Your task to perform on an android device: turn off data saver in the chrome app Image 0: 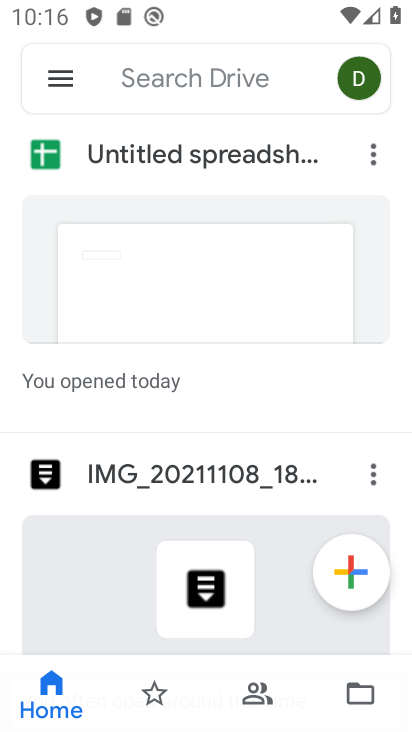
Step 0: press home button
Your task to perform on an android device: turn off data saver in the chrome app Image 1: 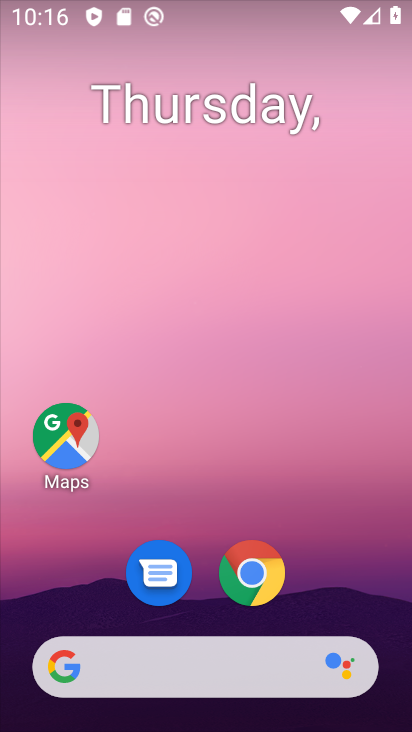
Step 1: click (246, 570)
Your task to perform on an android device: turn off data saver in the chrome app Image 2: 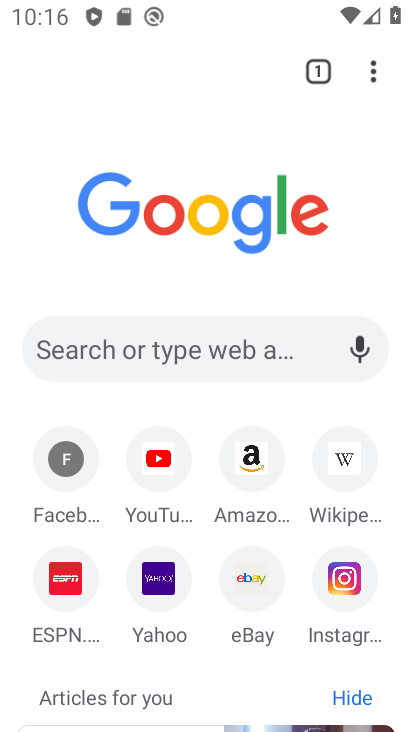
Step 2: click (376, 65)
Your task to perform on an android device: turn off data saver in the chrome app Image 3: 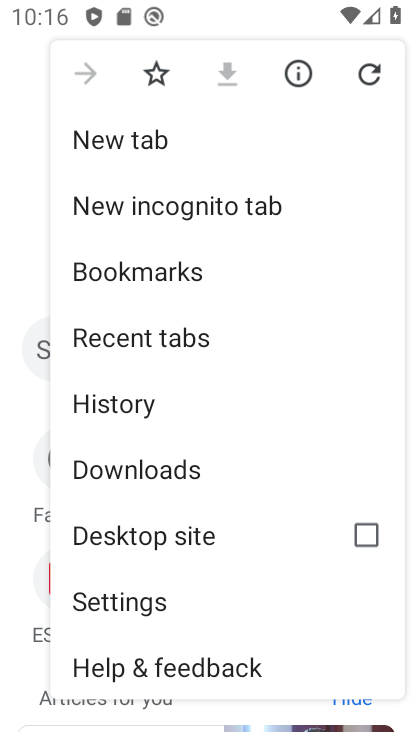
Step 3: drag from (203, 559) to (228, 12)
Your task to perform on an android device: turn off data saver in the chrome app Image 4: 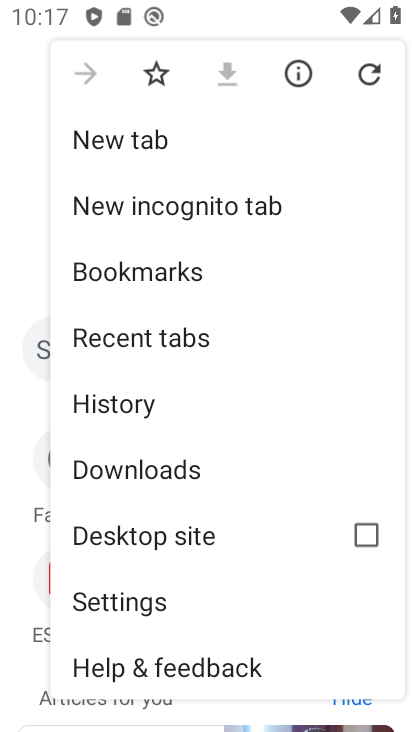
Step 4: click (140, 600)
Your task to perform on an android device: turn off data saver in the chrome app Image 5: 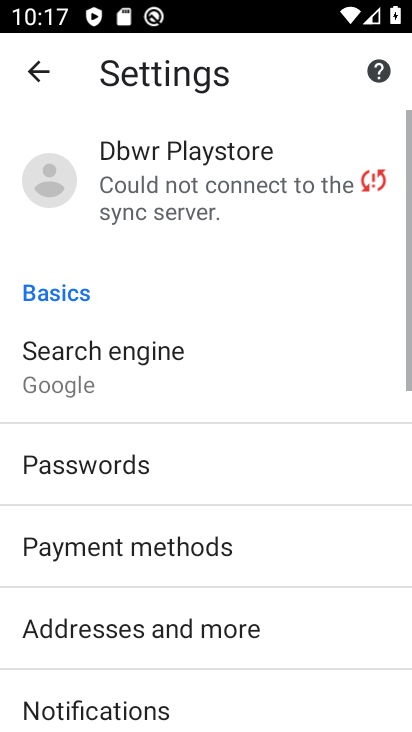
Step 5: drag from (139, 600) to (182, 8)
Your task to perform on an android device: turn off data saver in the chrome app Image 6: 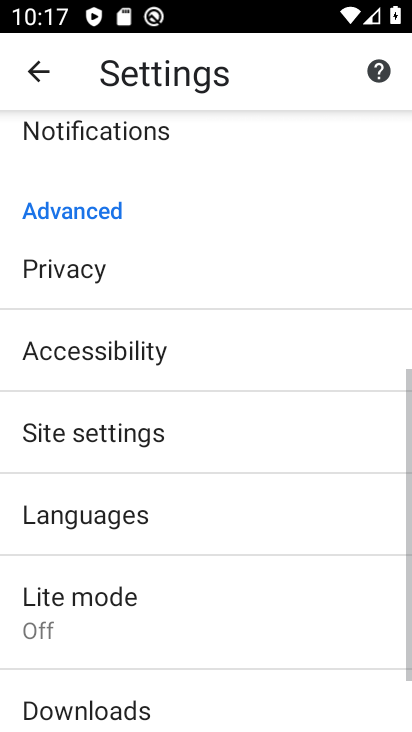
Step 6: click (43, 583)
Your task to perform on an android device: turn off data saver in the chrome app Image 7: 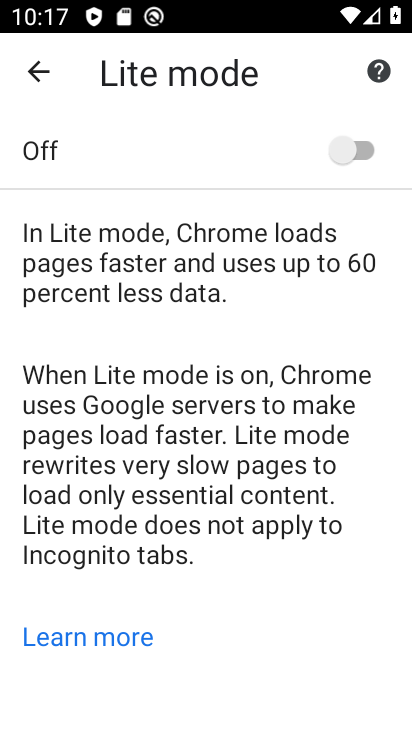
Step 7: task complete